Your task to perform on an android device: Open Yahoo.com Image 0: 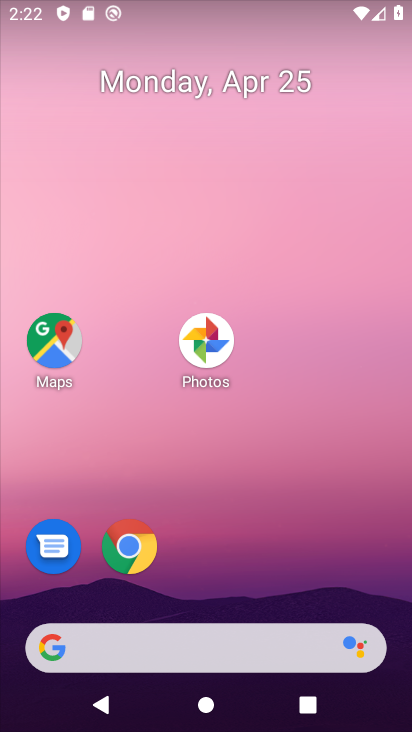
Step 0: drag from (343, 568) to (377, 211)
Your task to perform on an android device: Open Yahoo.com Image 1: 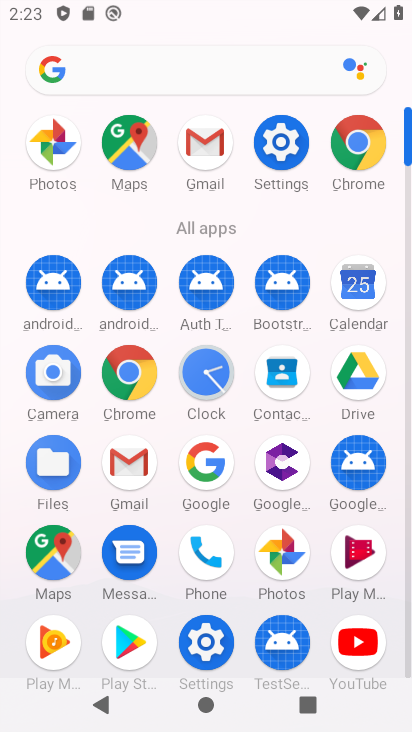
Step 1: click (136, 370)
Your task to perform on an android device: Open Yahoo.com Image 2: 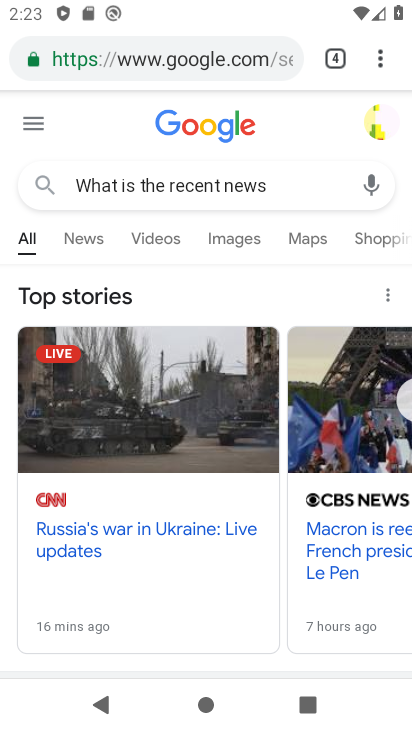
Step 2: click (366, 54)
Your task to perform on an android device: Open Yahoo.com Image 3: 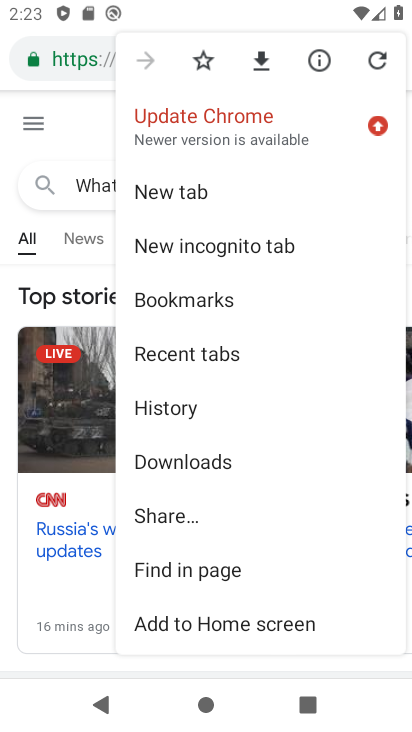
Step 3: click (205, 181)
Your task to perform on an android device: Open Yahoo.com Image 4: 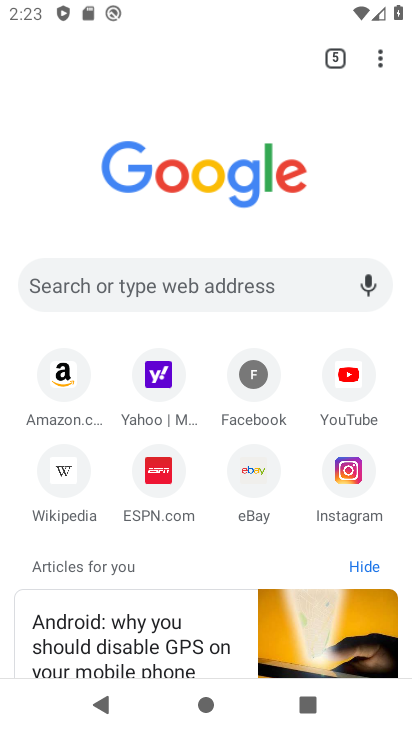
Step 4: click (162, 374)
Your task to perform on an android device: Open Yahoo.com Image 5: 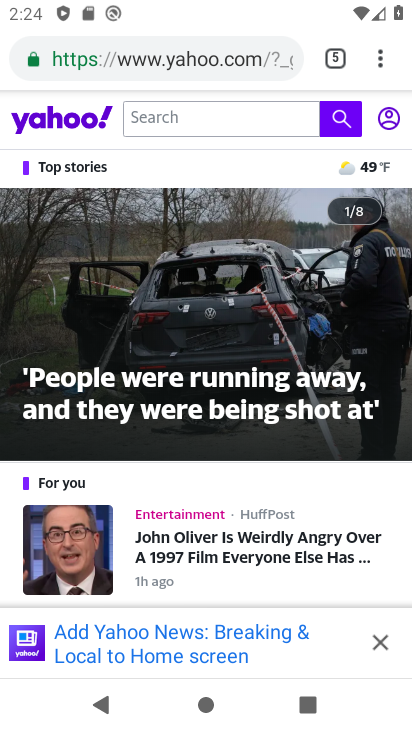
Step 5: task complete